Your task to perform on an android device: When is my next appointment? Image 0: 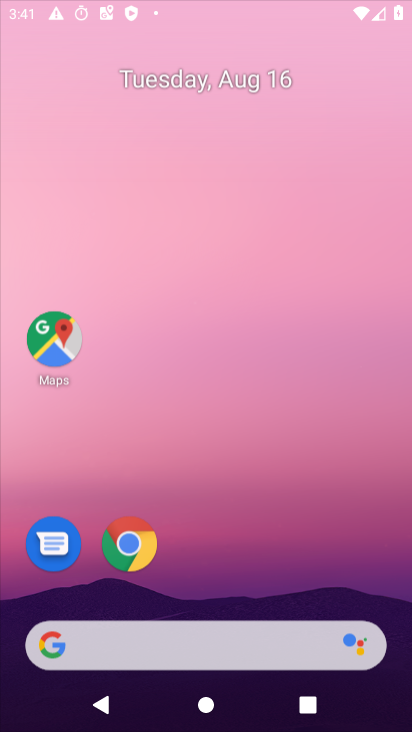
Step 0: press home button
Your task to perform on an android device: When is my next appointment? Image 1: 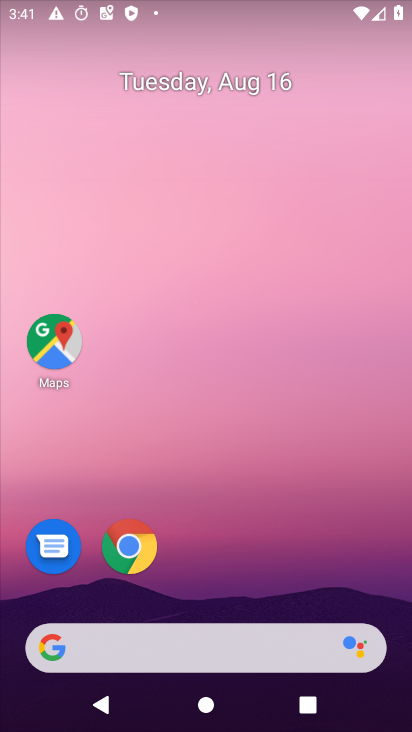
Step 1: drag from (341, 537) to (339, 94)
Your task to perform on an android device: When is my next appointment? Image 2: 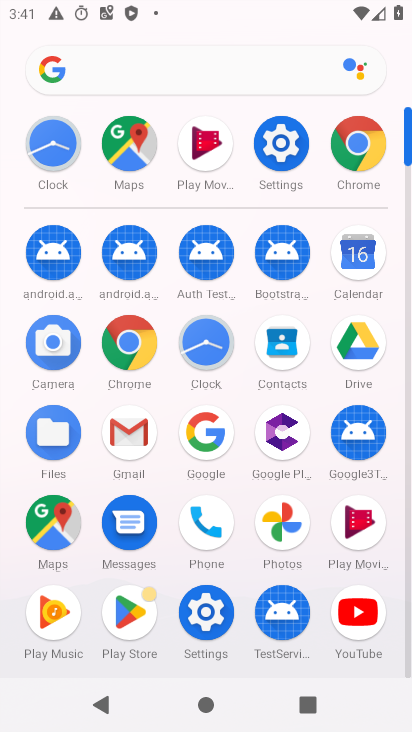
Step 2: click (355, 259)
Your task to perform on an android device: When is my next appointment? Image 3: 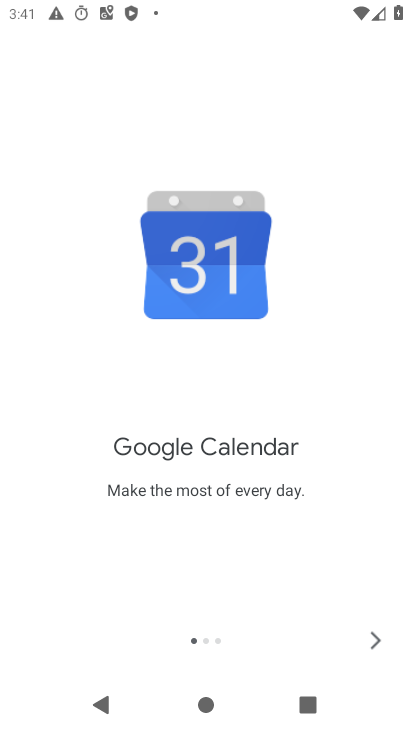
Step 3: click (363, 644)
Your task to perform on an android device: When is my next appointment? Image 4: 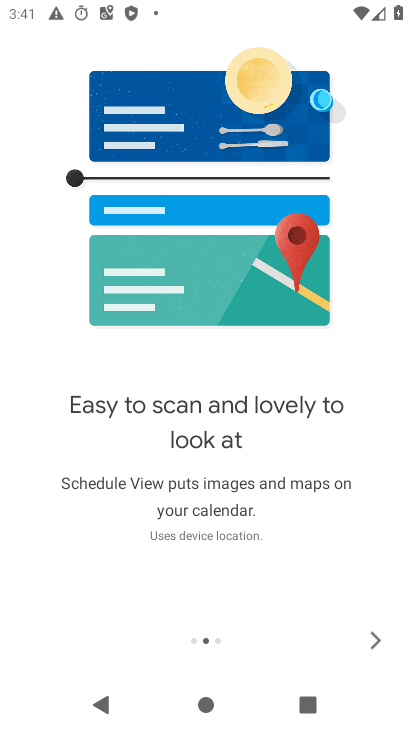
Step 4: click (363, 644)
Your task to perform on an android device: When is my next appointment? Image 5: 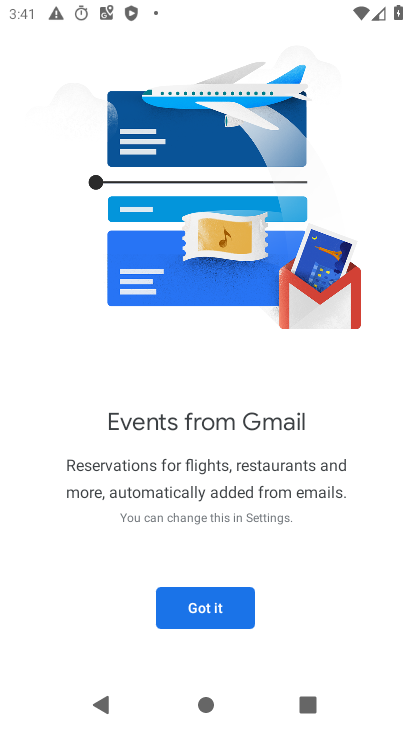
Step 5: click (224, 614)
Your task to perform on an android device: When is my next appointment? Image 6: 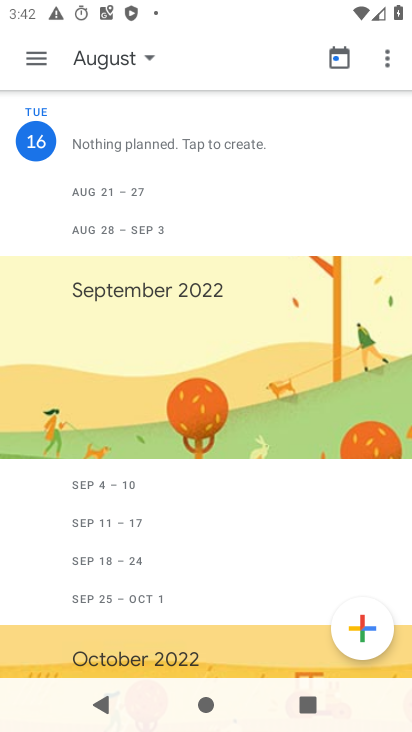
Step 6: task complete